Your task to perform on an android device: Toggle the flashlight Image 0: 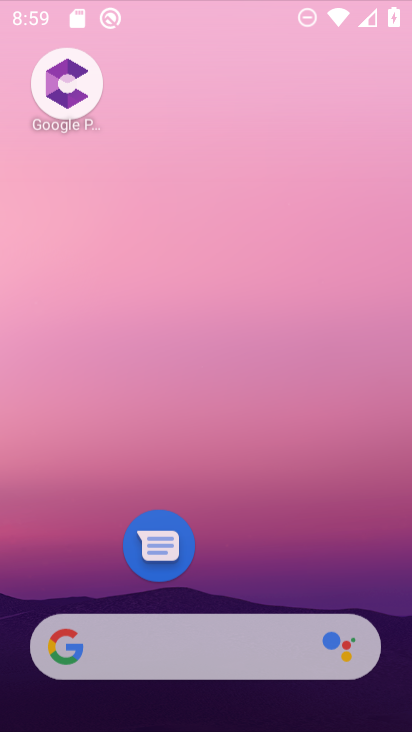
Step 0: drag from (231, 624) to (246, 260)
Your task to perform on an android device: Toggle the flashlight Image 1: 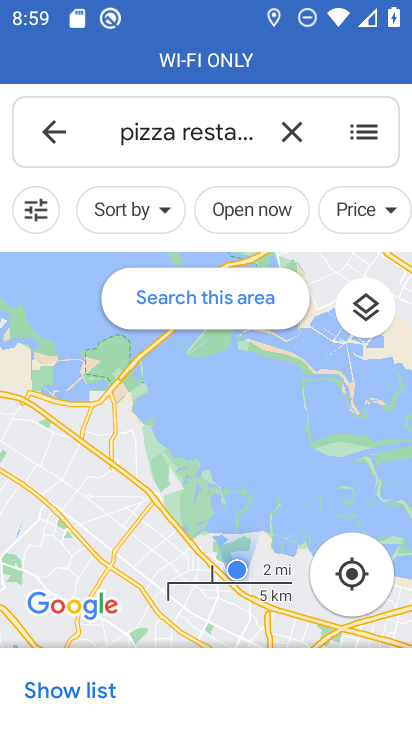
Step 1: task complete